Your task to perform on an android device: change your default location settings in chrome Image 0: 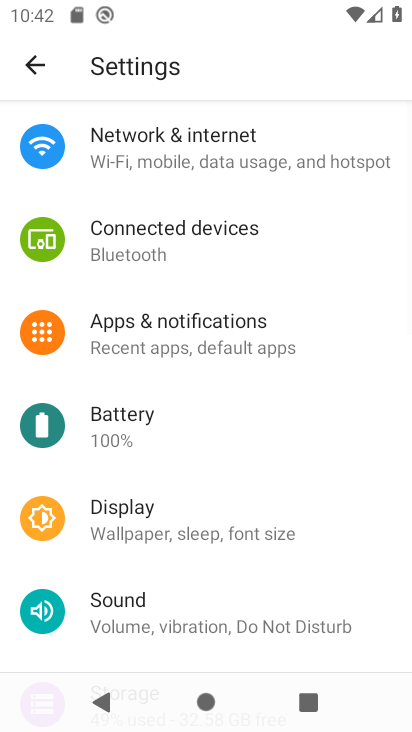
Step 0: press home button
Your task to perform on an android device: change your default location settings in chrome Image 1: 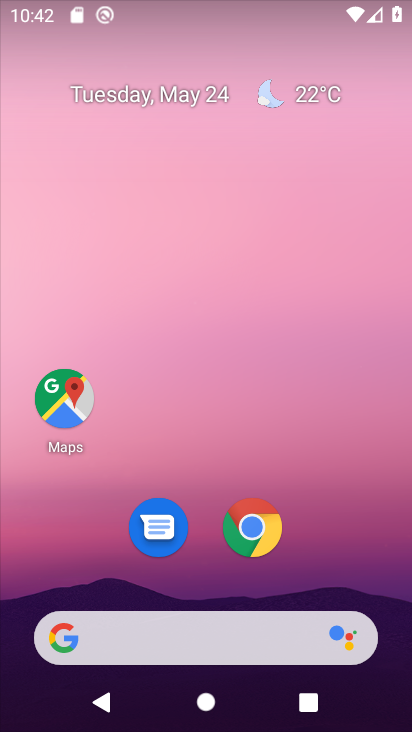
Step 1: click (251, 535)
Your task to perform on an android device: change your default location settings in chrome Image 2: 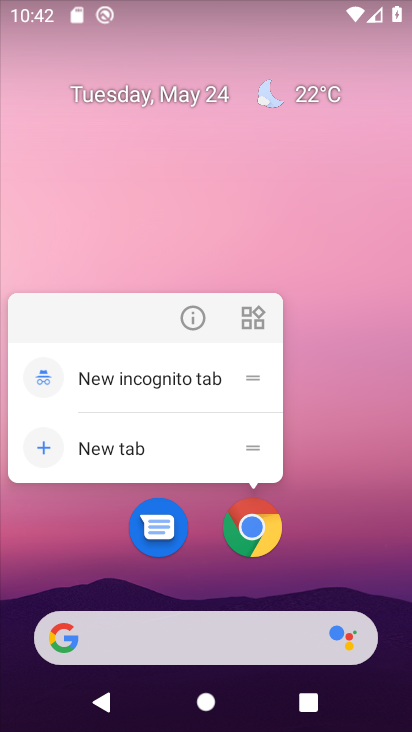
Step 2: click (248, 530)
Your task to perform on an android device: change your default location settings in chrome Image 3: 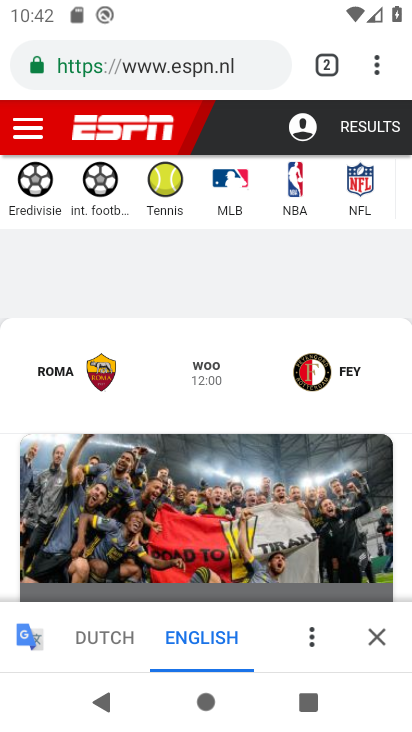
Step 3: drag from (373, 72) to (205, 583)
Your task to perform on an android device: change your default location settings in chrome Image 4: 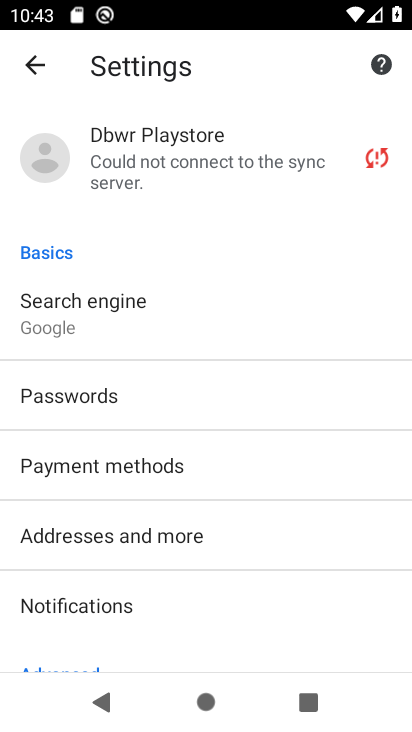
Step 4: drag from (182, 574) to (322, 182)
Your task to perform on an android device: change your default location settings in chrome Image 5: 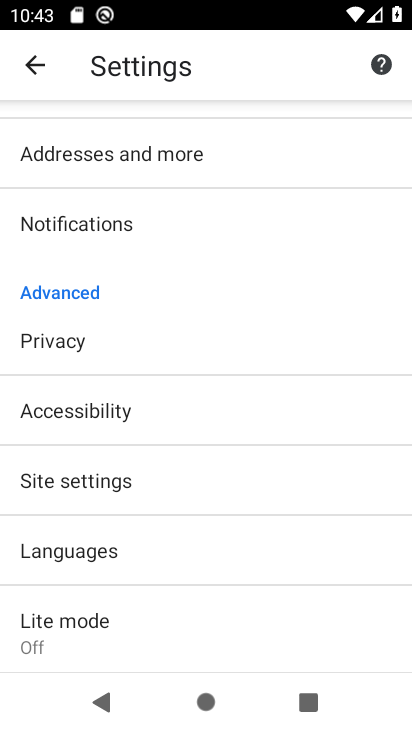
Step 5: click (128, 485)
Your task to perform on an android device: change your default location settings in chrome Image 6: 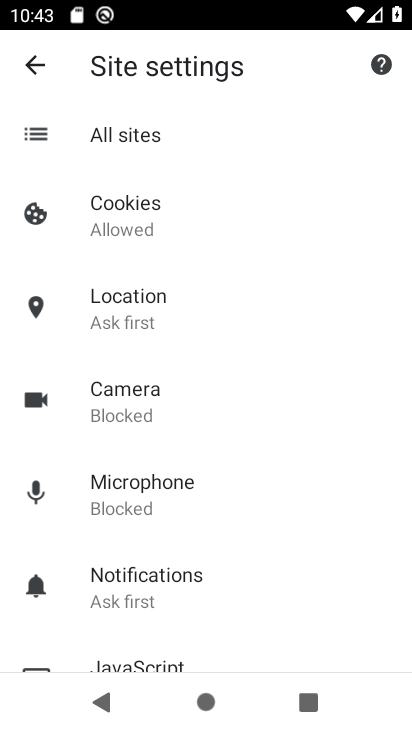
Step 6: click (137, 315)
Your task to perform on an android device: change your default location settings in chrome Image 7: 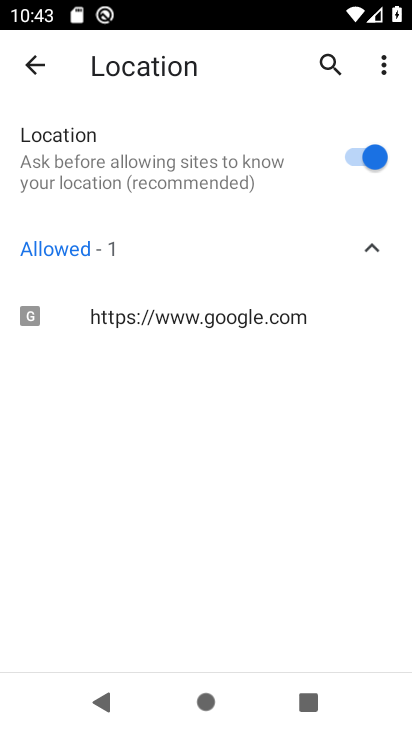
Step 7: click (348, 160)
Your task to perform on an android device: change your default location settings in chrome Image 8: 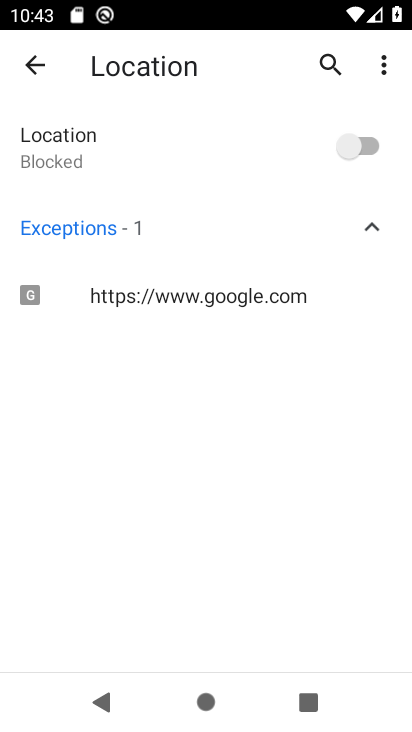
Step 8: task complete